Your task to perform on an android device: Open notification settings Image 0: 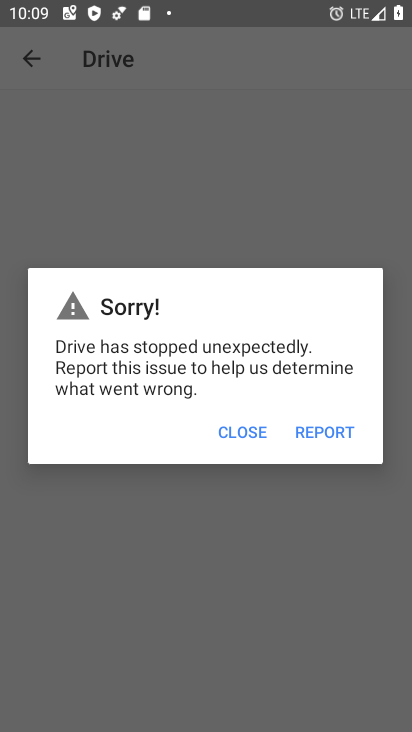
Step 0: press home button
Your task to perform on an android device: Open notification settings Image 1: 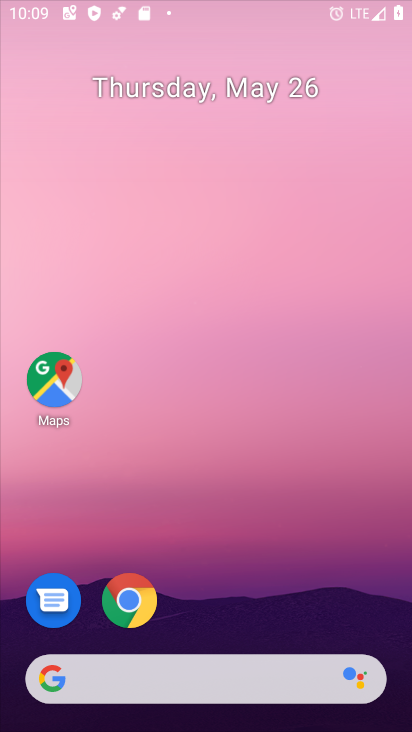
Step 1: drag from (305, 532) to (327, 22)
Your task to perform on an android device: Open notification settings Image 2: 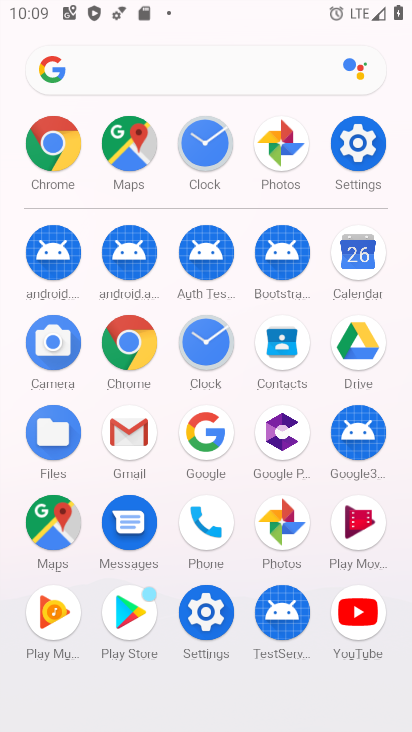
Step 2: click (351, 136)
Your task to perform on an android device: Open notification settings Image 3: 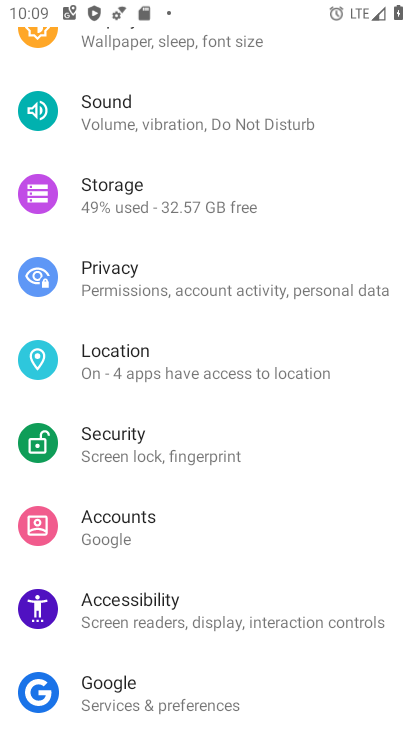
Step 3: drag from (224, 157) to (176, 501)
Your task to perform on an android device: Open notification settings Image 4: 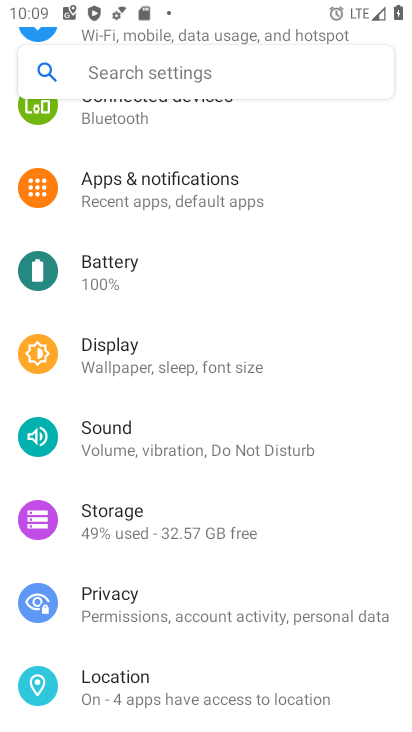
Step 4: click (192, 204)
Your task to perform on an android device: Open notification settings Image 5: 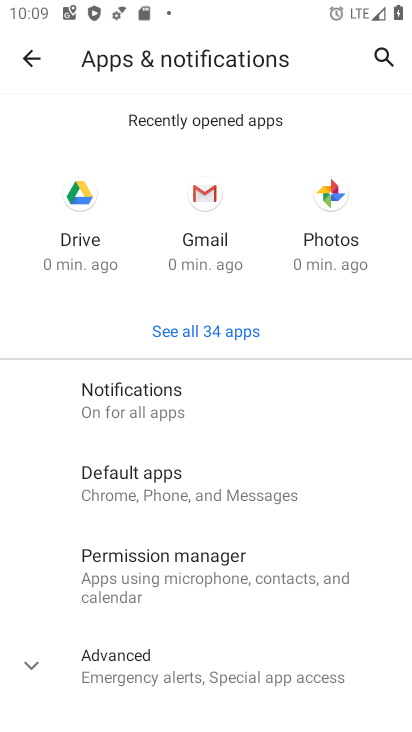
Step 5: click (166, 399)
Your task to perform on an android device: Open notification settings Image 6: 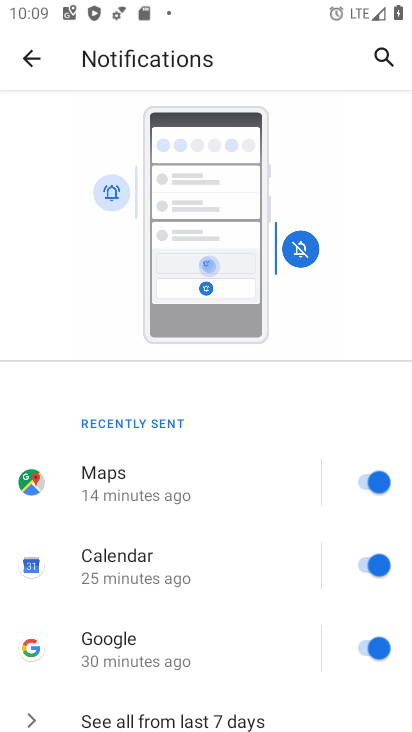
Step 6: task complete